Your task to perform on an android device: show emergency info Image 0: 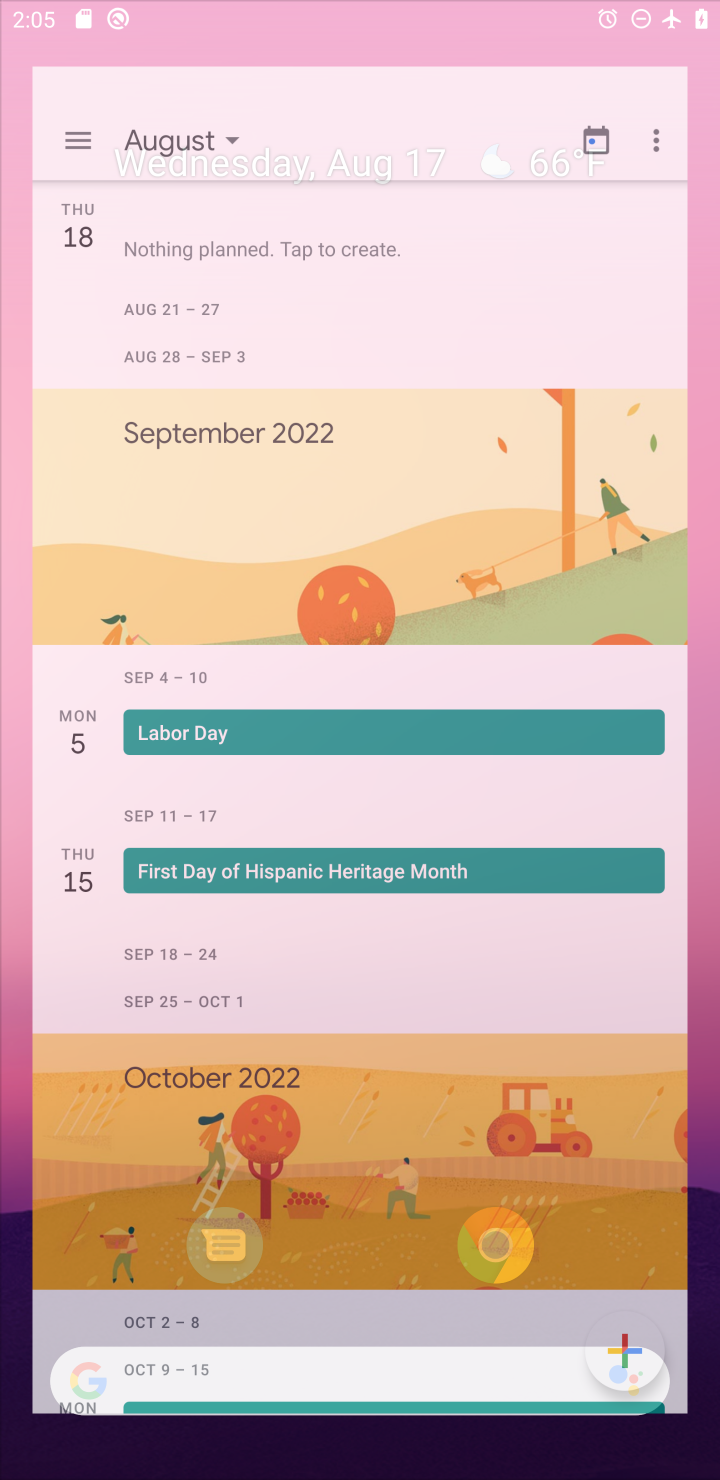
Step 0: press home button
Your task to perform on an android device: show emergency info Image 1: 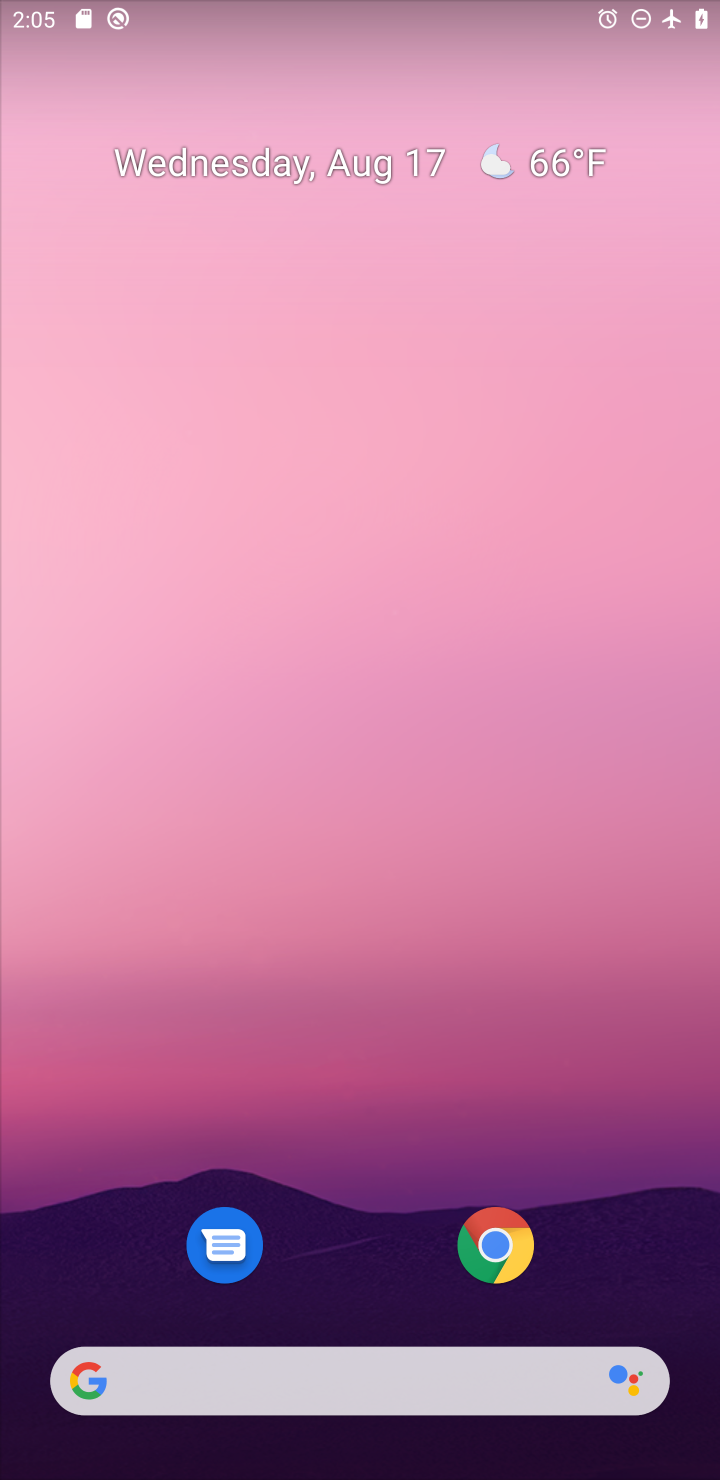
Step 1: drag from (350, 1285) to (264, 252)
Your task to perform on an android device: show emergency info Image 2: 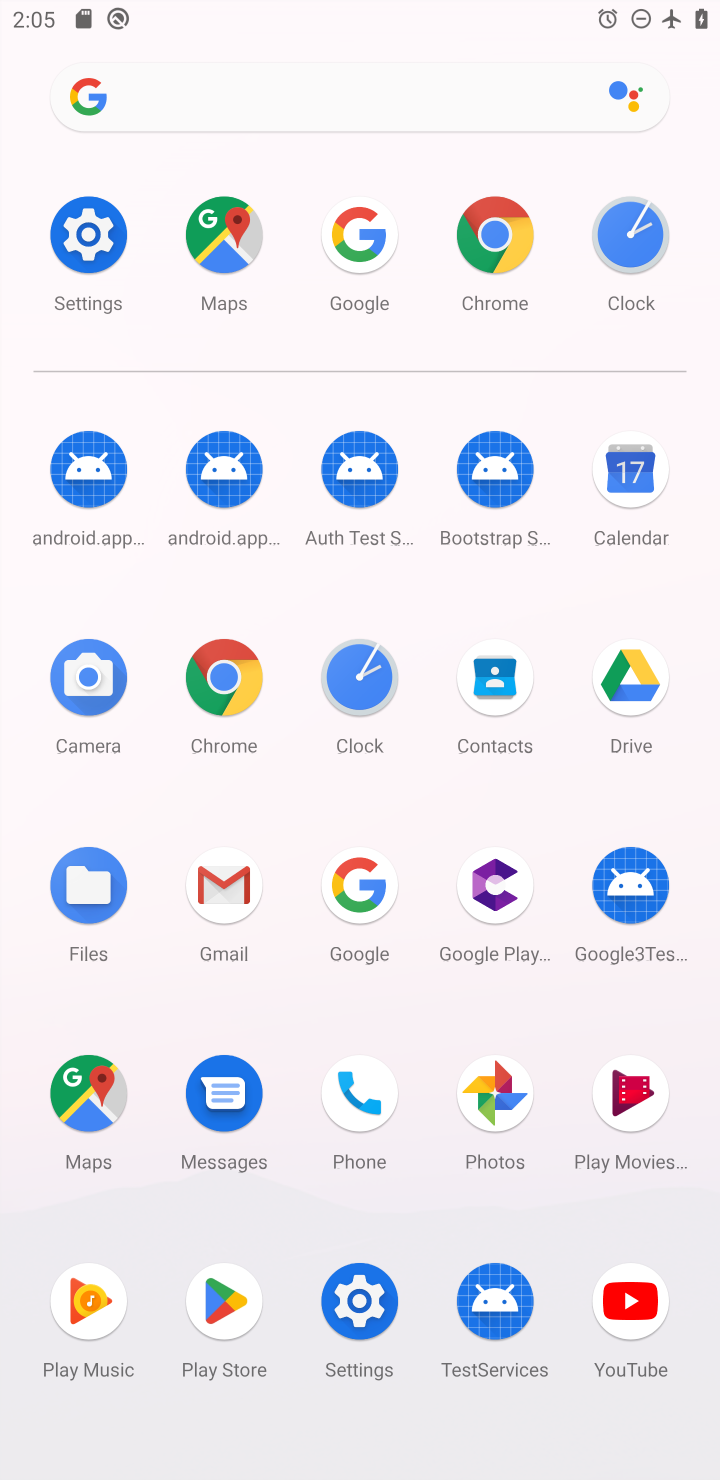
Step 2: click (335, 1297)
Your task to perform on an android device: show emergency info Image 3: 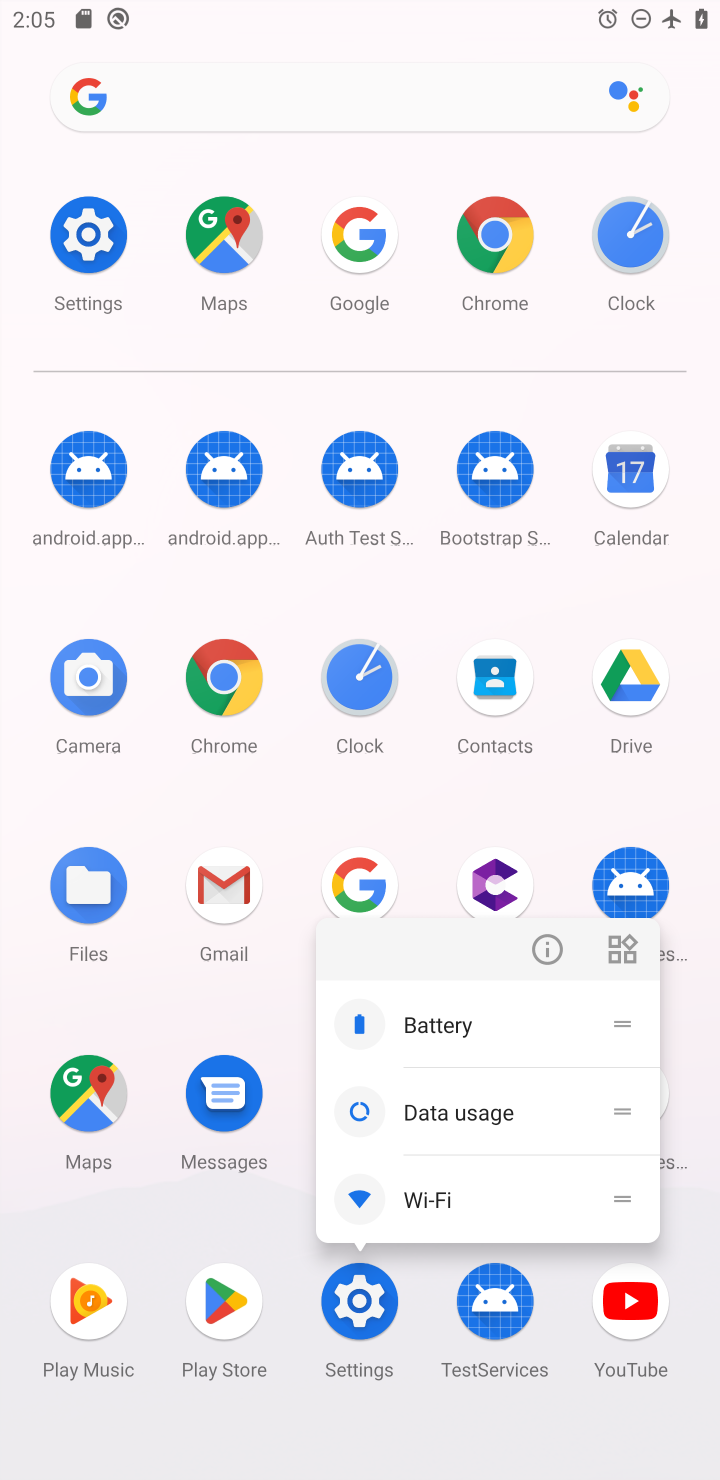
Step 3: click (350, 1298)
Your task to perform on an android device: show emergency info Image 4: 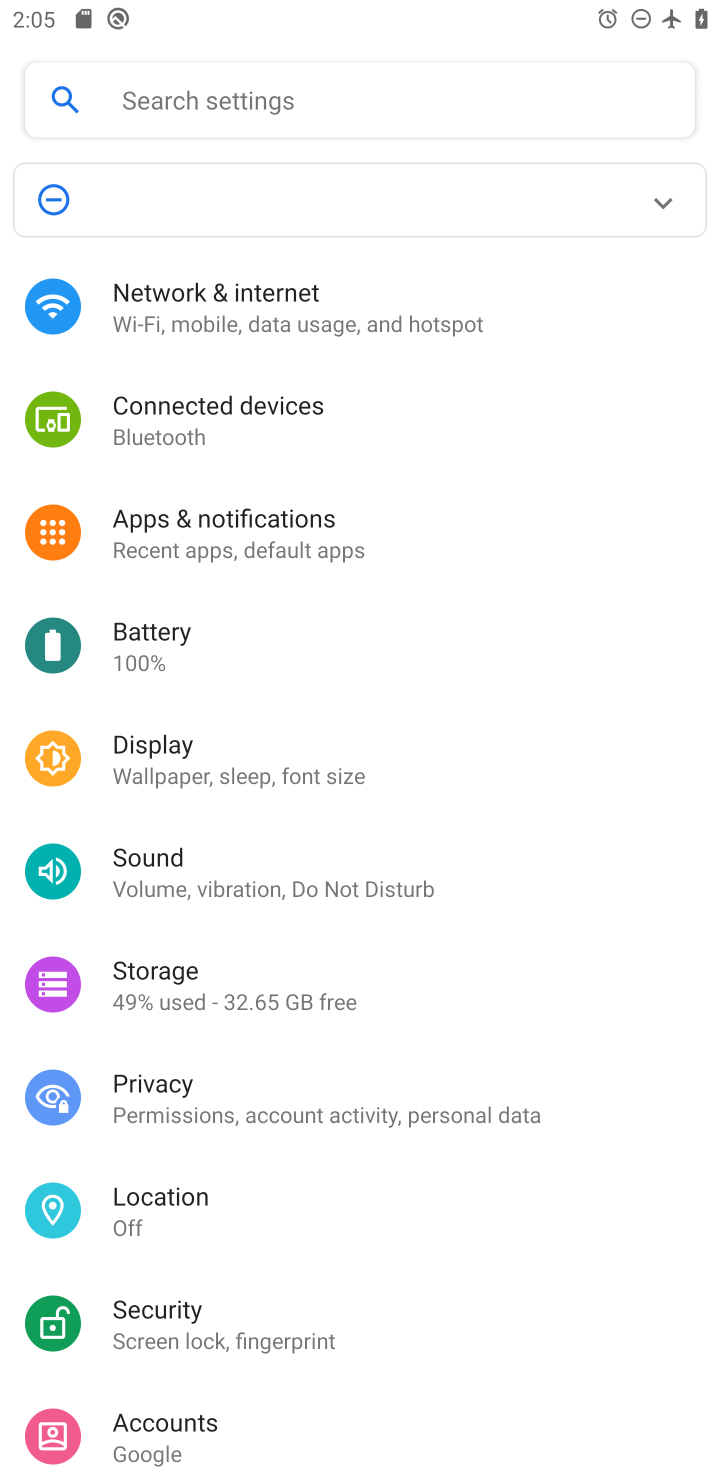
Step 4: drag from (202, 1410) to (183, 722)
Your task to perform on an android device: show emergency info Image 5: 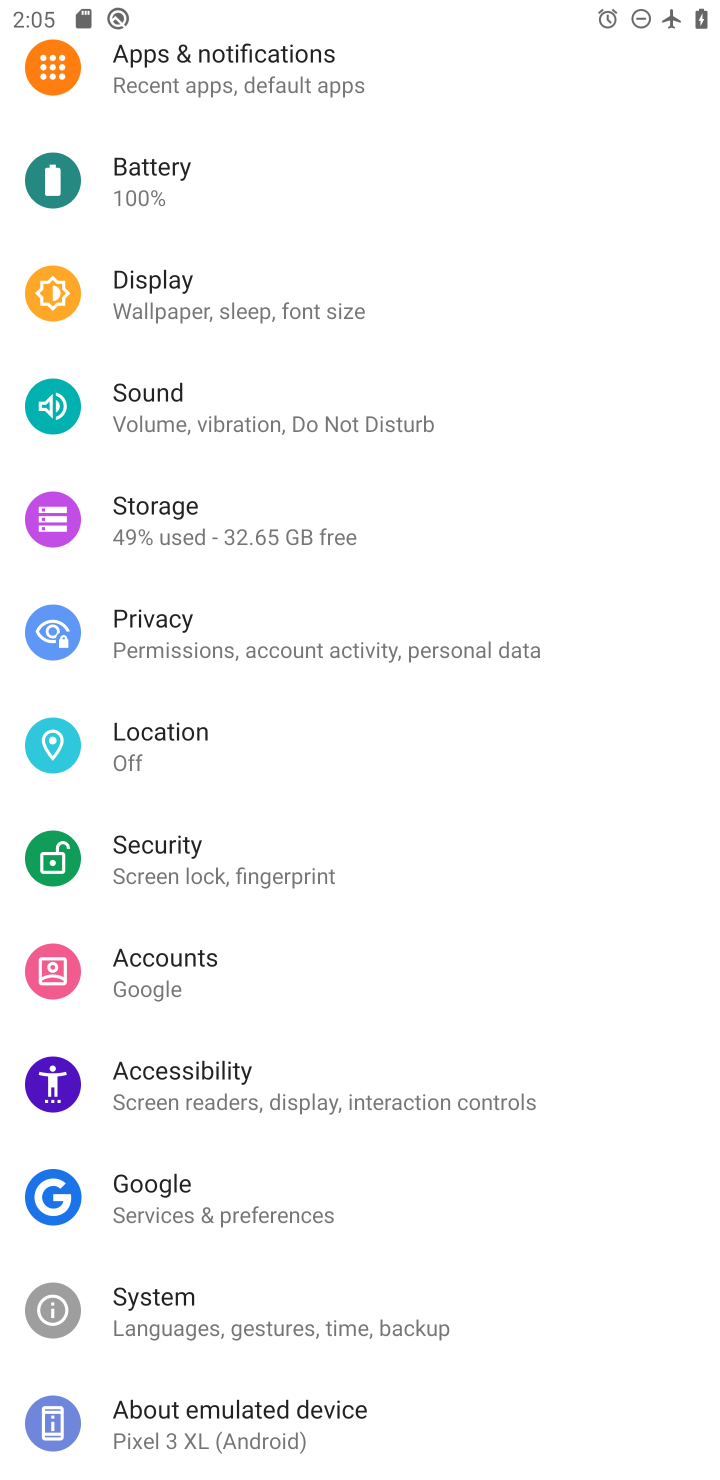
Step 5: click (260, 1426)
Your task to perform on an android device: show emergency info Image 6: 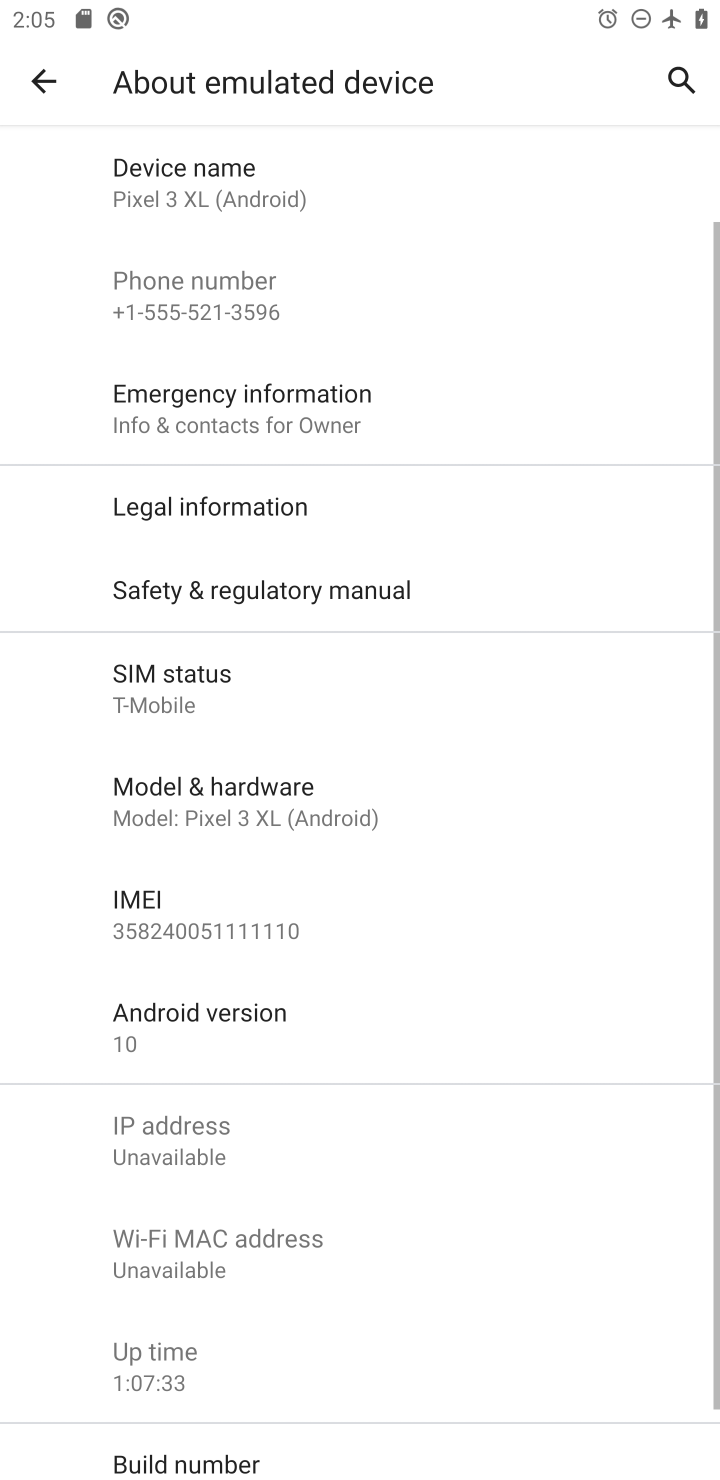
Step 6: click (202, 397)
Your task to perform on an android device: show emergency info Image 7: 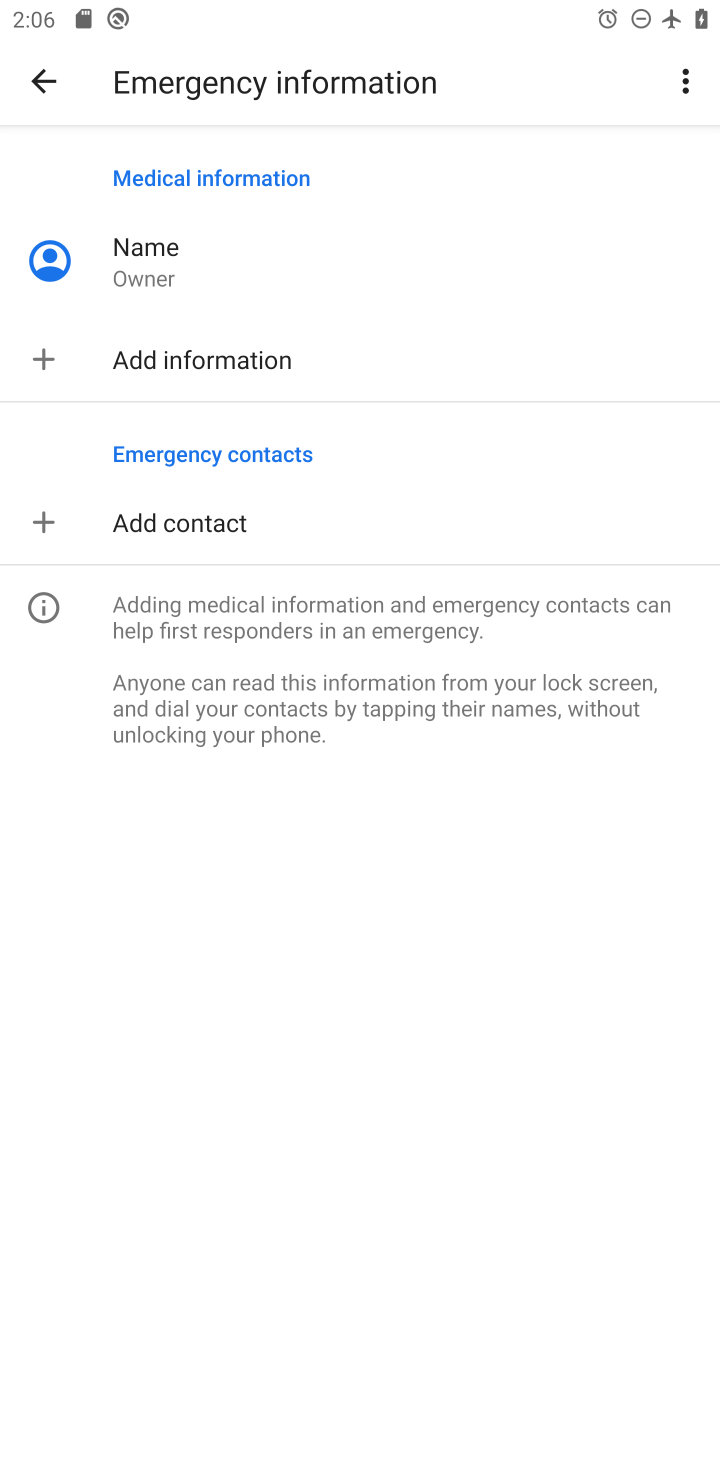
Step 7: task complete